Your task to perform on an android device: check storage Image 0: 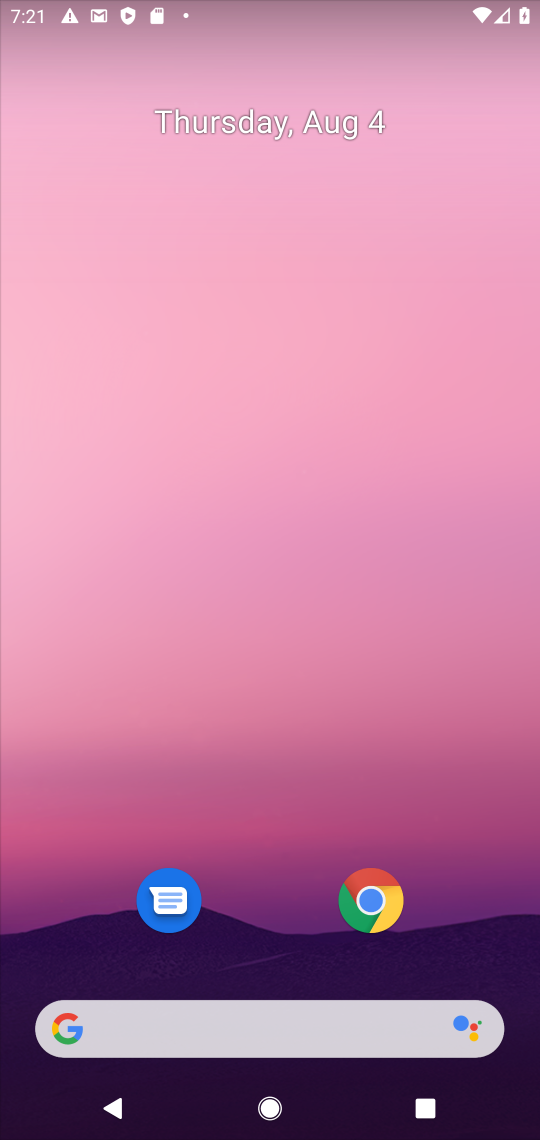
Step 0: drag from (253, 1035) to (319, 276)
Your task to perform on an android device: check storage Image 1: 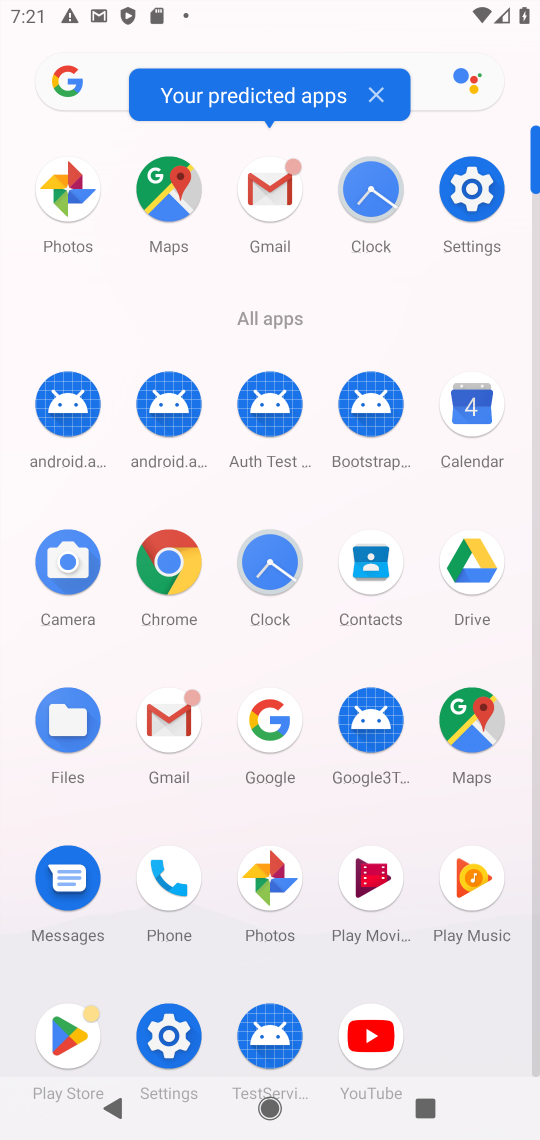
Step 1: click (472, 190)
Your task to perform on an android device: check storage Image 2: 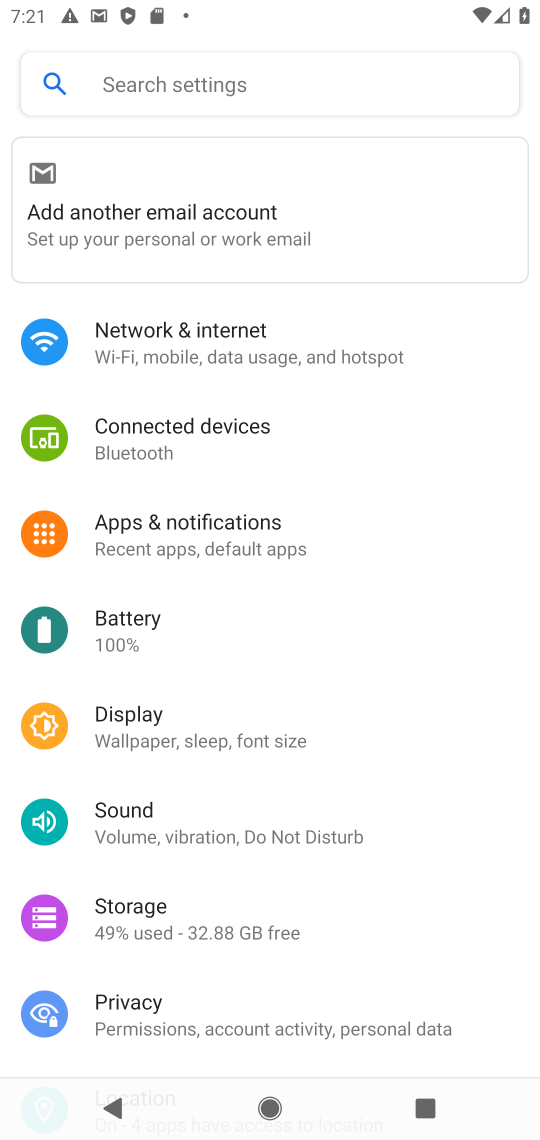
Step 2: click (166, 925)
Your task to perform on an android device: check storage Image 3: 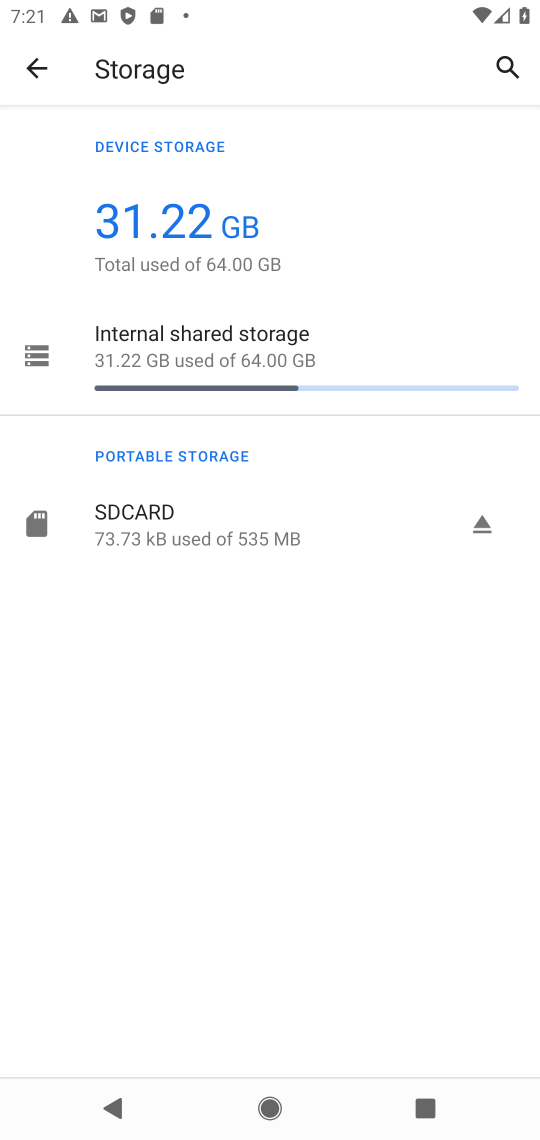
Step 3: task complete